Your task to perform on an android device: Google the capital of Peru Image 0: 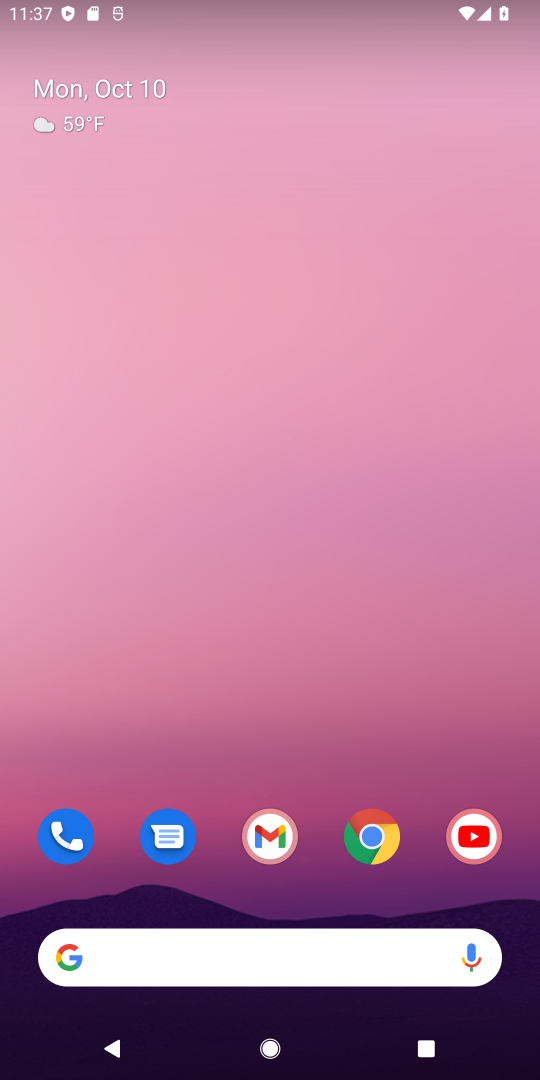
Step 0: click (384, 819)
Your task to perform on an android device: Google the capital of Peru Image 1: 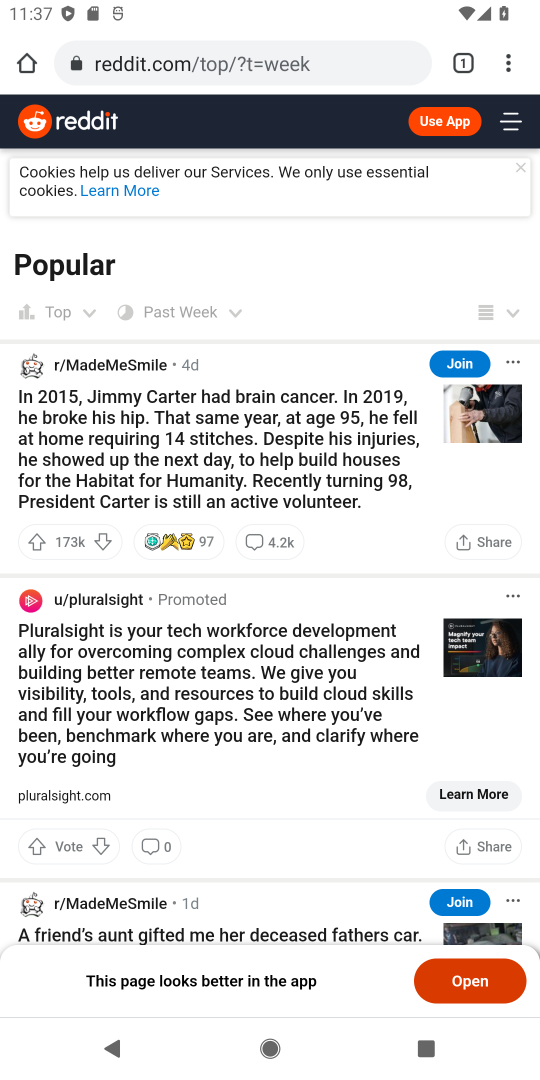
Step 1: click (148, 69)
Your task to perform on an android device: Google the capital of Peru Image 2: 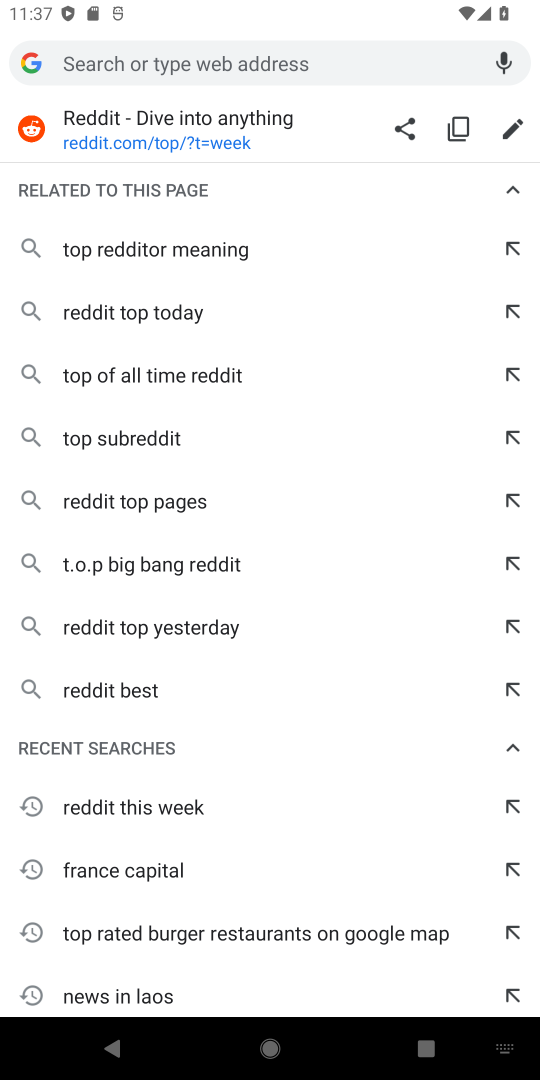
Step 2: type "peru capitall"
Your task to perform on an android device: Google the capital of Peru Image 3: 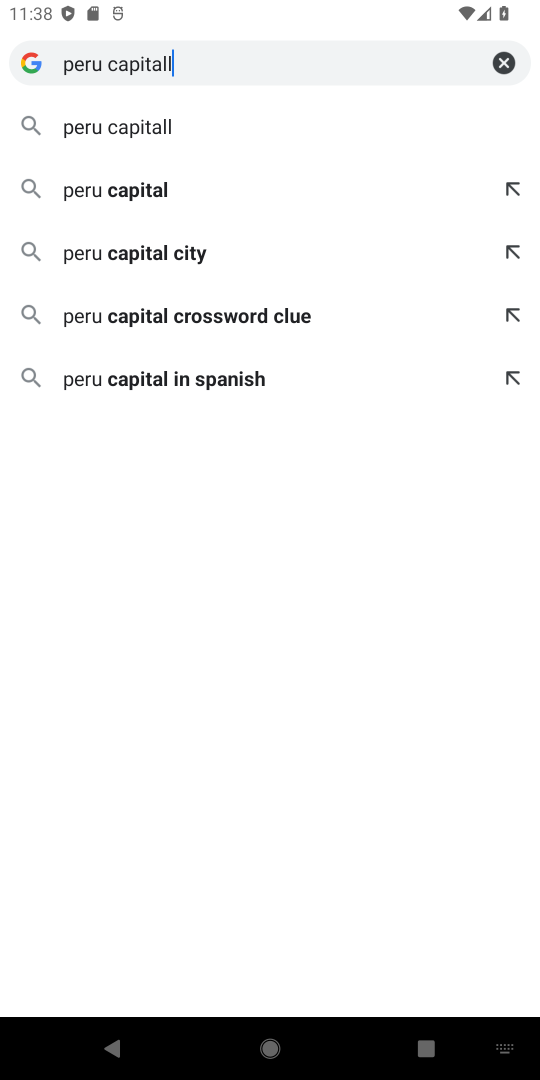
Step 3: click (198, 122)
Your task to perform on an android device: Google the capital of Peru Image 4: 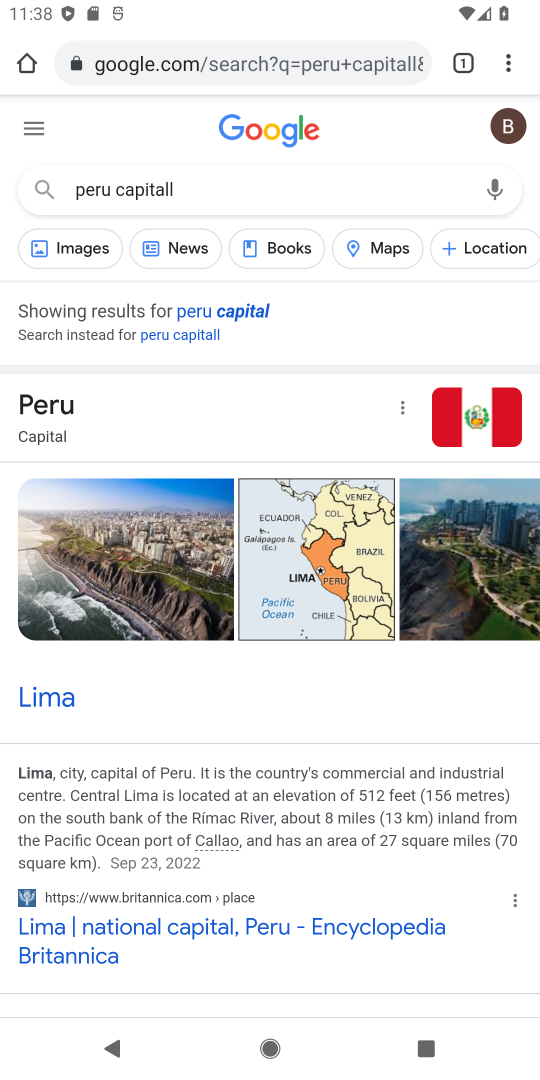
Step 4: task complete